Your task to perform on an android device: Open maps Image 0: 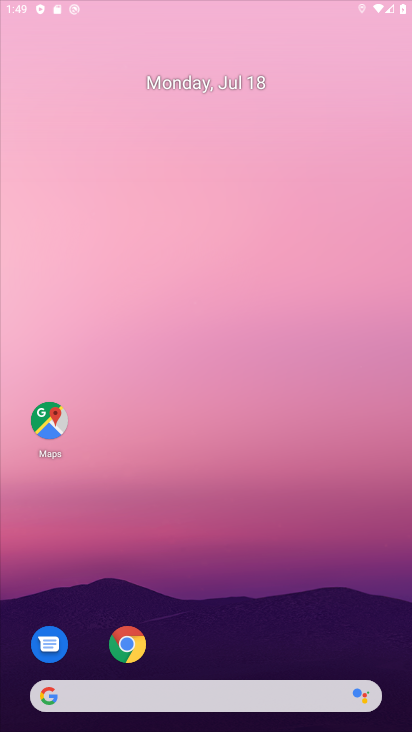
Step 0: drag from (300, 685) to (236, 200)
Your task to perform on an android device: Open maps Image 1: 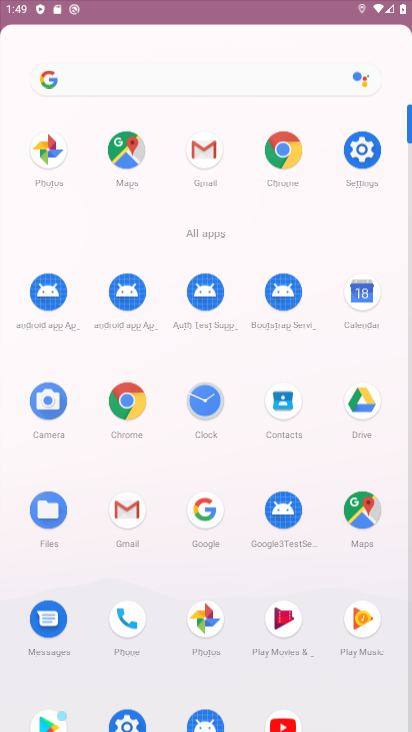
Step 1: drag from (232, 633) to (211, 154)
Your task to perform on an android device: Open maps Image 2: 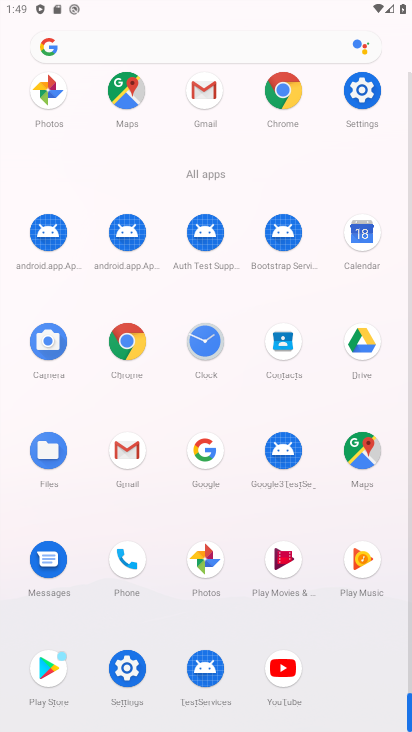
Step 2: click (357, 450)
Your task to perform on an android device: Open maps Image 3: 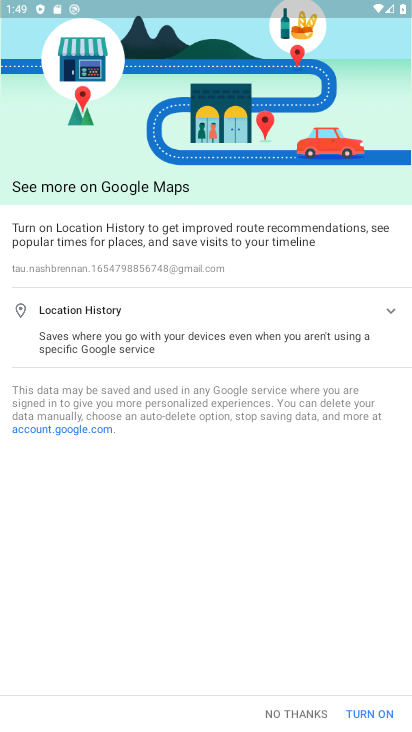
Step 3: task complete